Your task to perform on an android device: toggle airplane mode Image 0: 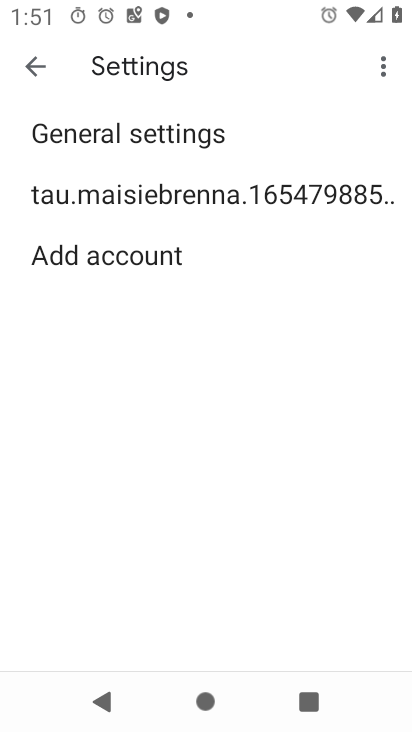
Step 0: press home button
Your task to perform on an android device: toggle airplane mode Image 1: 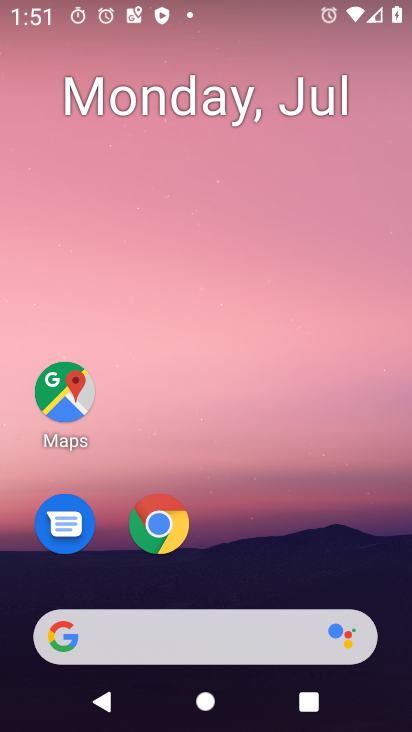
Step 1: drag from (298, 1) to (345, 341)
Your task to perform on an android device: toggle airplane mode Image 2: 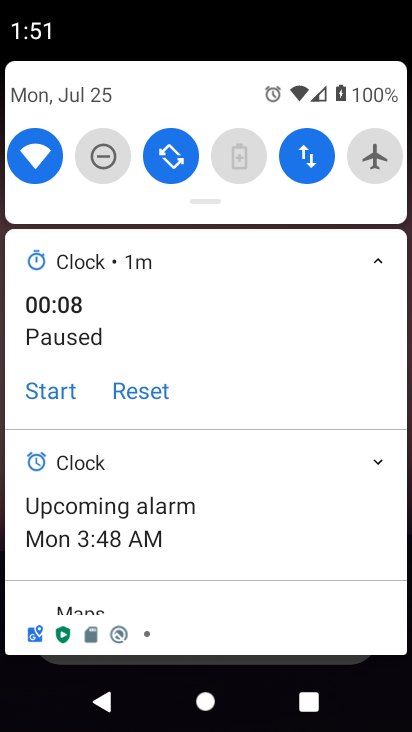
Step 2: click (391, 143)
Your task to perform on an android device: toggle airplane mode Image 3: 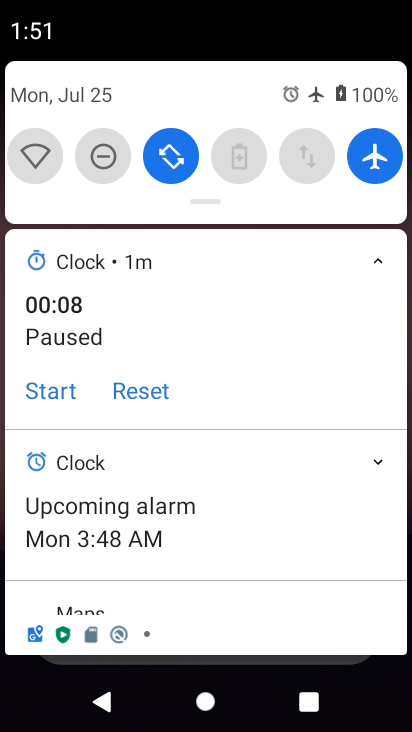
Step 3: task complete